Your task to perform on an android device: Open Wikipedia Image 0: 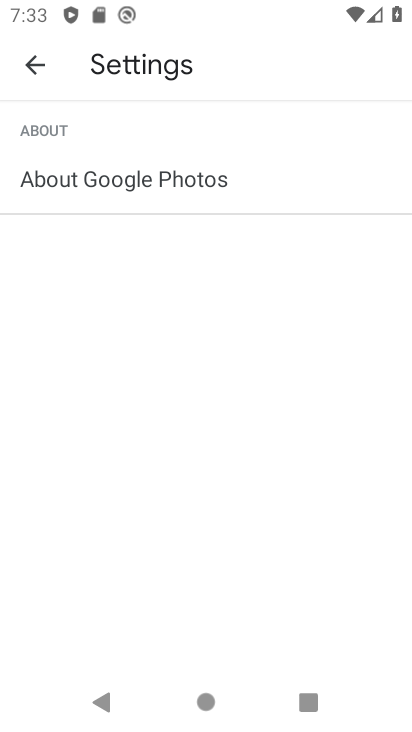
Step 0: press home button
Your task to perform on an android device: Open Wikipedia Image 1: 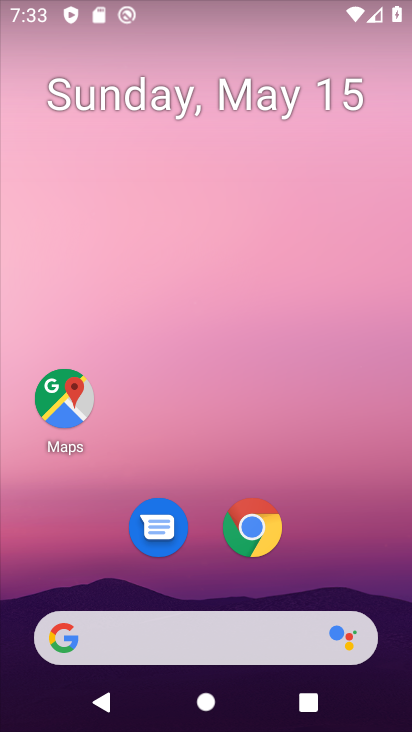
Step 1: click (250, 533)
Your task to perform on an android device: Open Wikipedia Image 2: 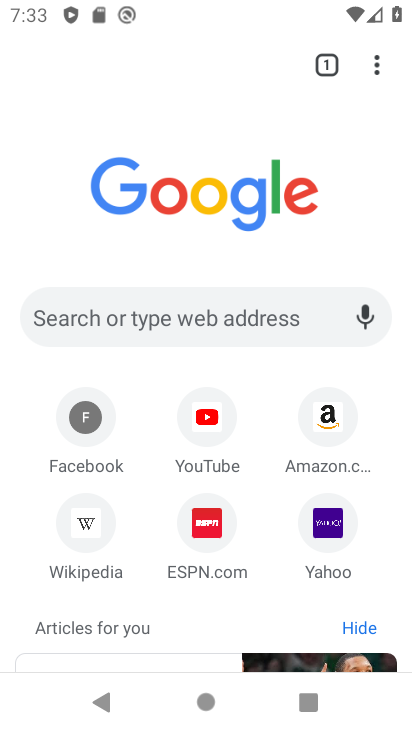
Step 2: click (92, 528)
Your task to perform on an android device: Open Wikipedia Image 3: 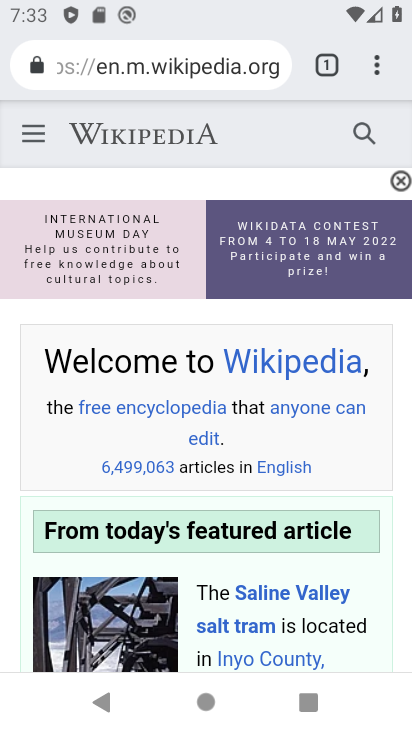
Step 3: task complete